Your task to perform on an android device: Search for the best rated coffee table on Target. Image 0: 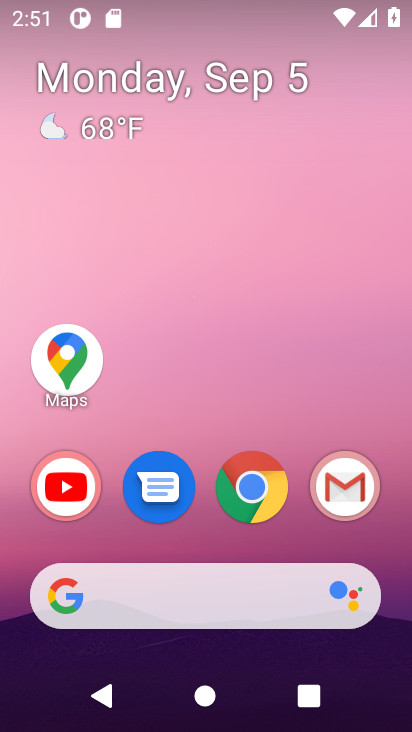
Step 0: click (265, 486)
Your task to perform on an android device: Search for the best rated coffee table on Target. Image 1: 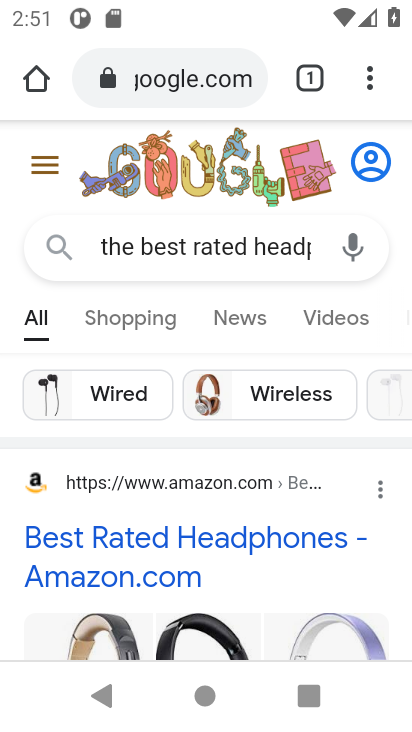
Step 1: click (216, 93)
Your task to perform on an android device: Search for the best rated coffee table on Target. Image 2: 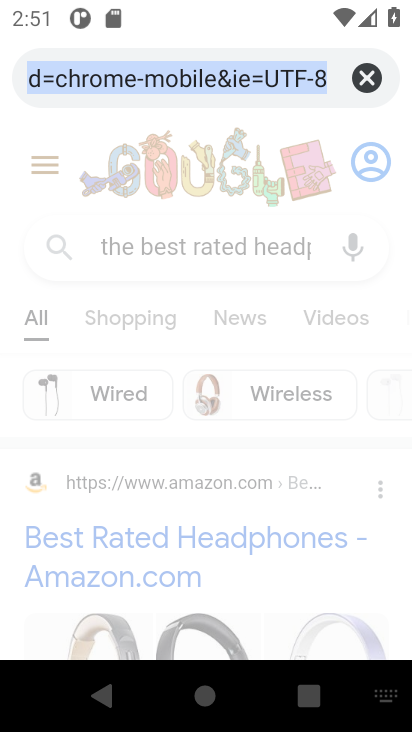
Step 2: click (364, 74)
Your task to perform on an android device: Search for the best rated coffee table on Target. Image 3: 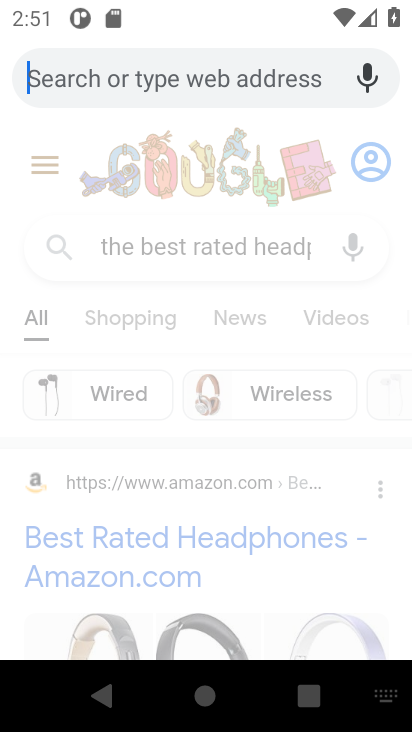
Step 3: type "the best rated coffee table on Target."
Your task to perform on an android device: Search for the best rated coffee table on Target. Image 4: 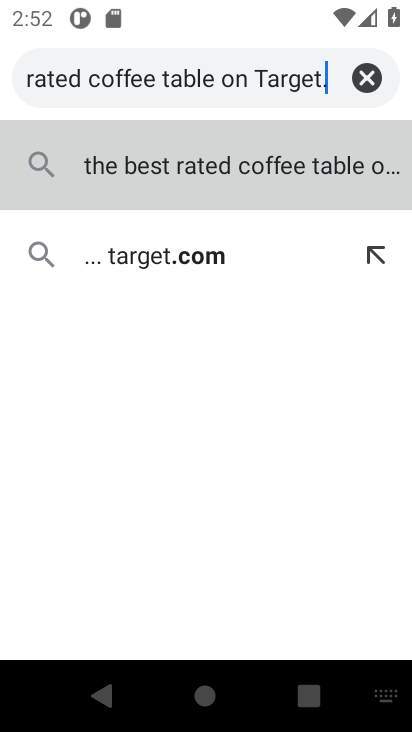
Step 4: click (282, 179)
Your task to perform on an android device: Search for the best rated coffee table on Target. Image 5: 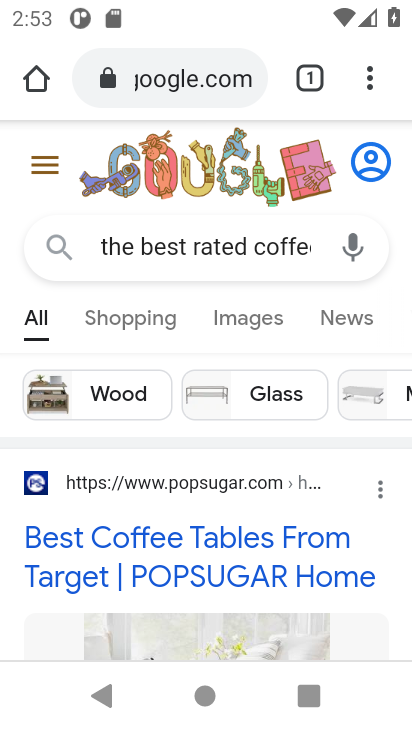
Step 5: click (4, 638)
Your task to perform on an android device: Search for the best rated coffee table on Target. Image 6: 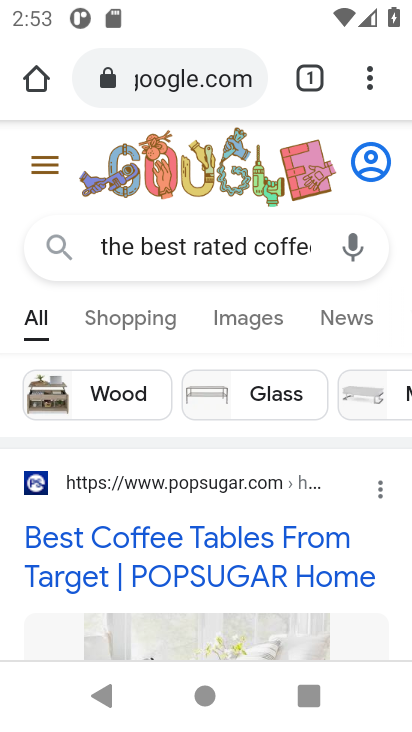
Step 6: click (9, 581)
Your task to perform on an android device: Search for the best rated coffee table on Target. Image 7: 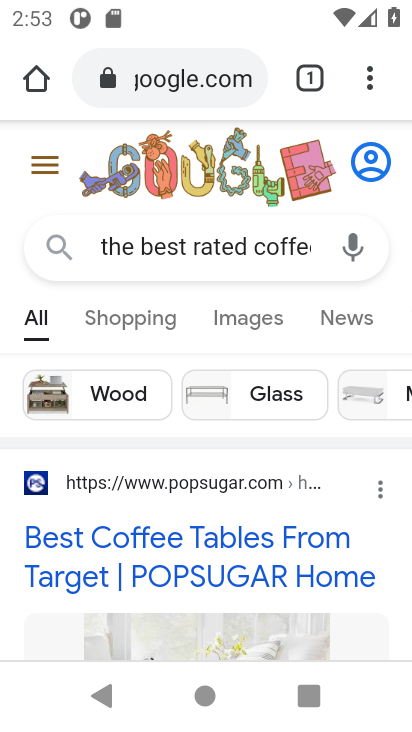
Step 7: task complete